Your task to perform on an android device: What's on my calendar tomorrow? Image 0: 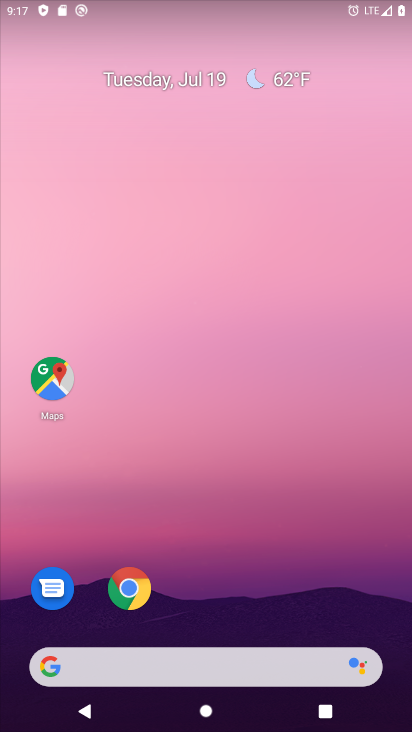
Step 0: drag from (233, 560) to (258, 30)
Your task to perform on an android device: What's on my calendar tomorrow? Image 1: 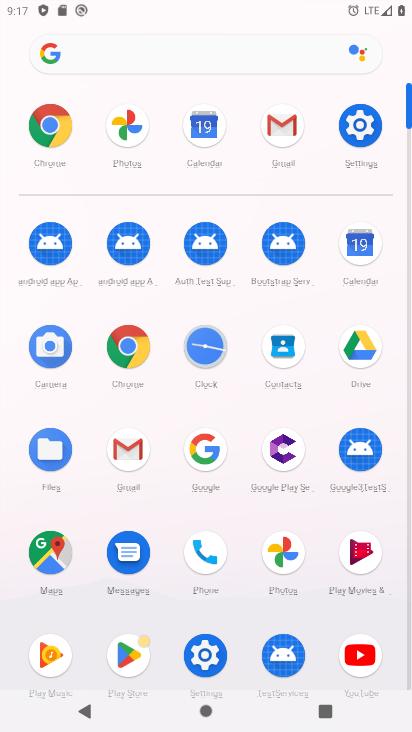
Step 1: click (362, 253)
Your task to perform on an android device: What's on my calendar tomorrow? Image 2: 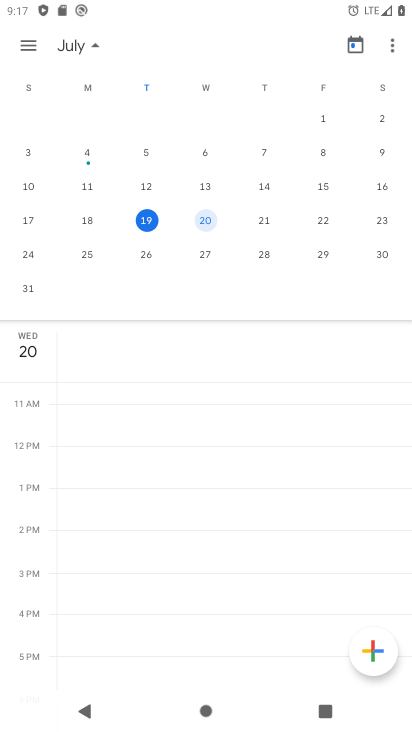
Step 2: click (206, 223)
Your task to perform on an android device: What's on my calendar tomorrow? Image 3: 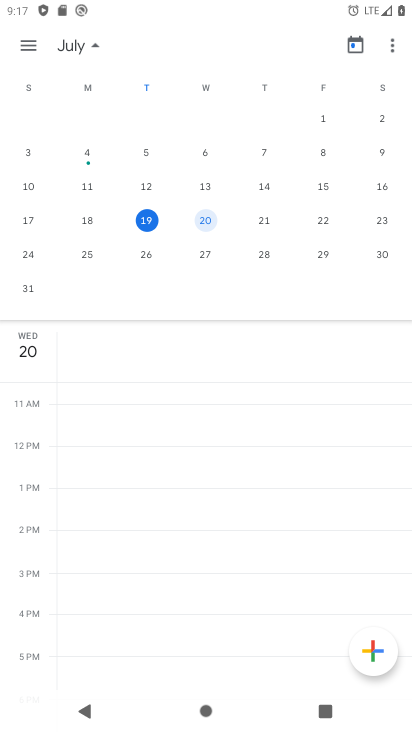
Step 3: click (206, 223)
Your task to perform on an android device: What's on my calendar tomorrow? Image 4: 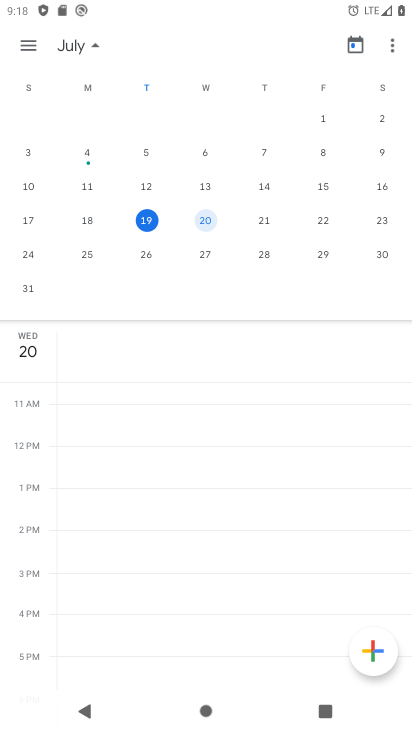
Step 4: task complete